Your task to perform on an android device: Open calendar and show me the third week of next month Image 0: 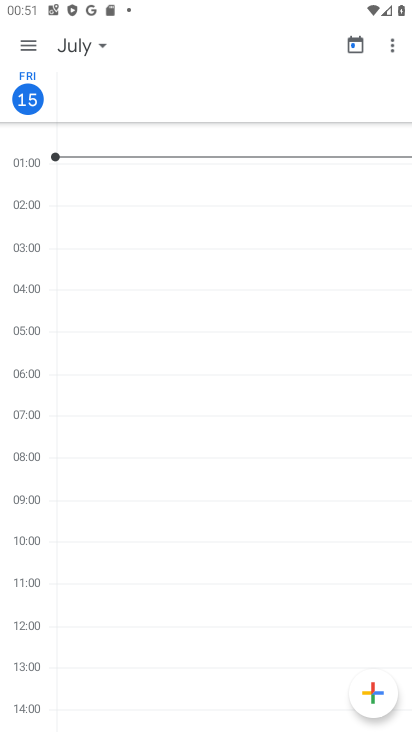
Step 0: press home button
Your task to perform on an android device: Open calendar and show me the third week of next month Image 1: 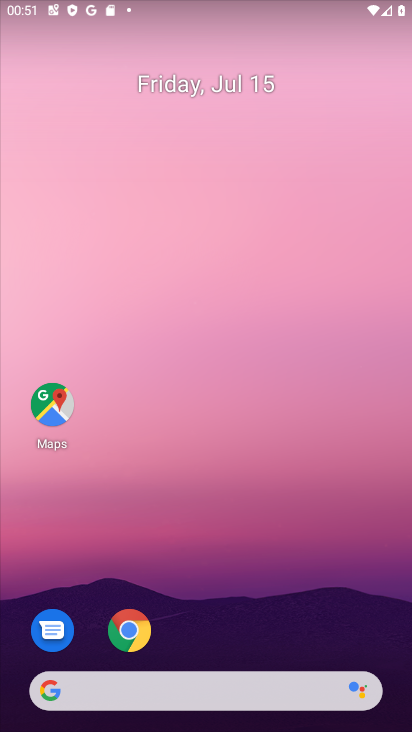
Step 1: drag from (243, 625) to (175, 53)
Your task to perform on an android device: Open calendar and show me the third week of next month Image 2: 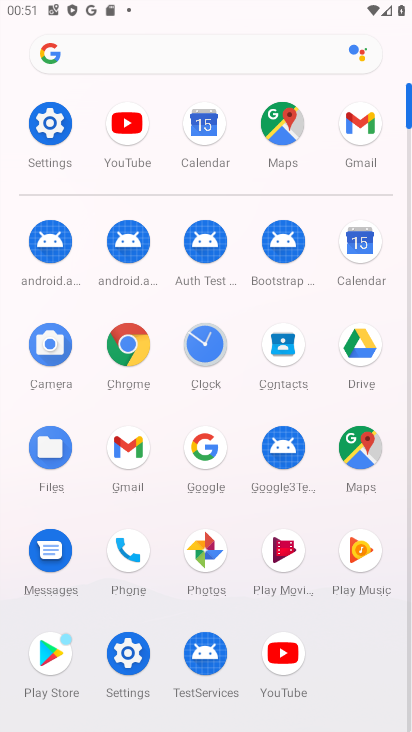
Step 2: click (200, 126)
Your task to perform on an android device: Open calendar and show me the third week of next month Image 3: 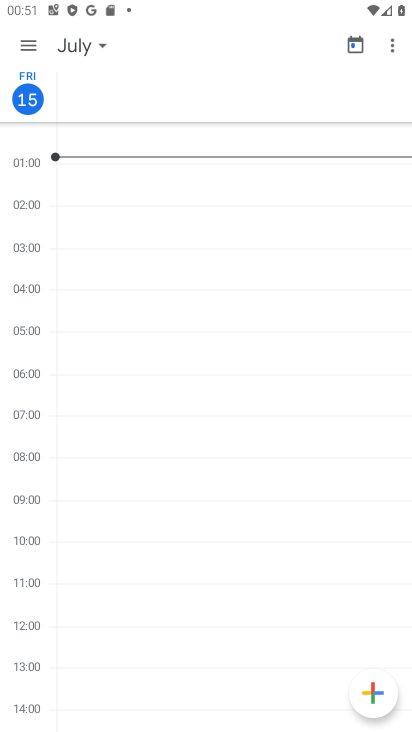
Step 3: task complete